Your task to perform on an android device: Go to internet settings Image 0: 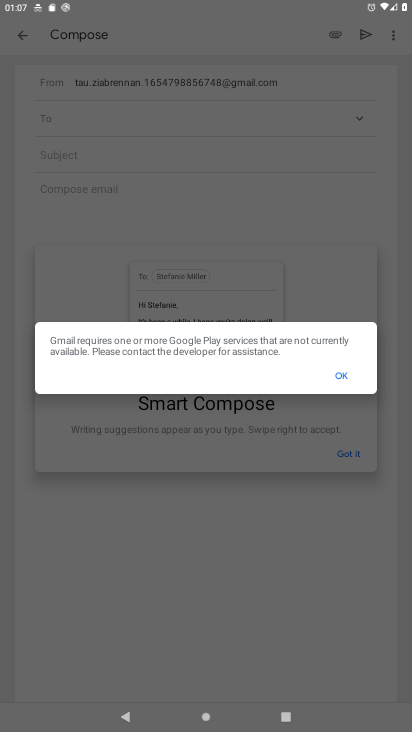
Step 0: press home button
Your task to perform on an android device: Go to internet settings Image 1: 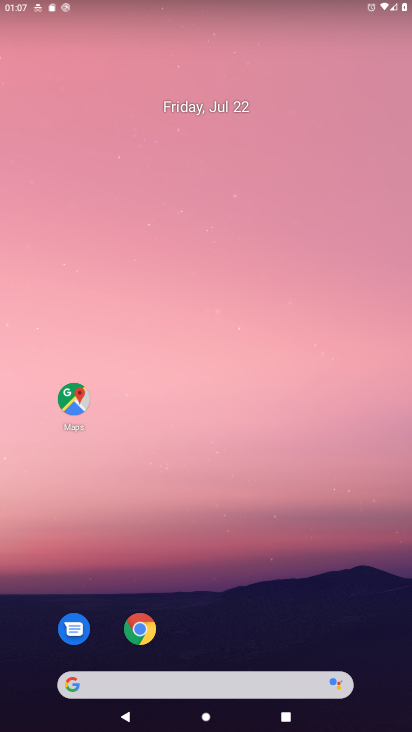
Step 1: drag from (265, 641) to (273, 189)
Your task to perform on an android device: Go to internet settings Image 2: 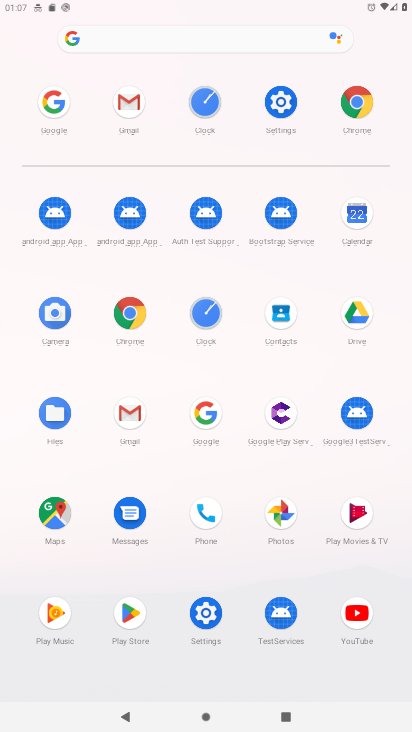
Step 2: click (289, 95)
Your task to perform on an android device: Go to internet settings Image 3: 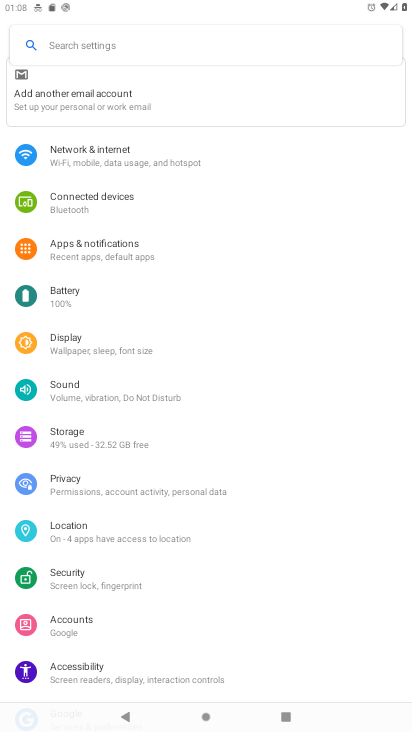
Step 3: click (140, 143)
Your task to perform on an android device: Go to internet settings Image 4: 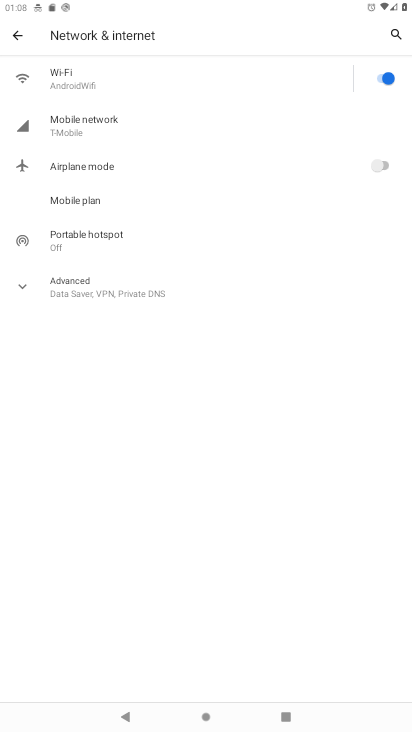
Step 4: task complete